Your task to perform on an android device: toggle data saver in the chrome app Image 0: 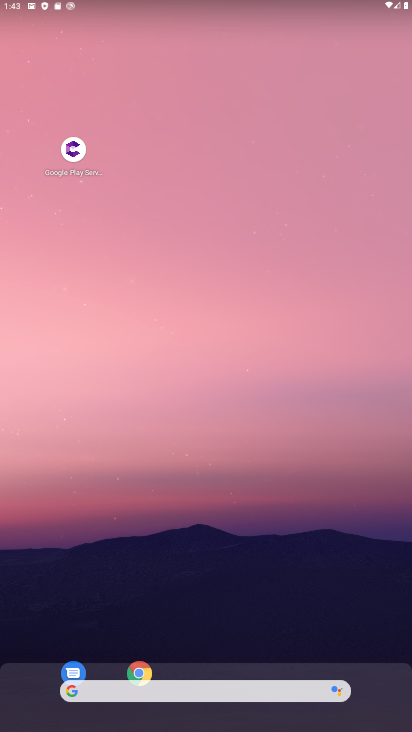
Step 0: click (134, 709)
Your task to perform on an android device: toggle data saver in the chrome app Image 1: 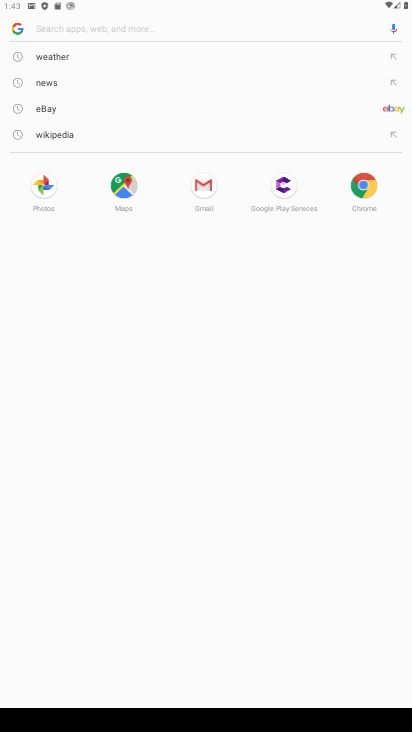
Step 1: press home button
Your task to perform on an android device: toggle data saver in the chrome app Image 2: 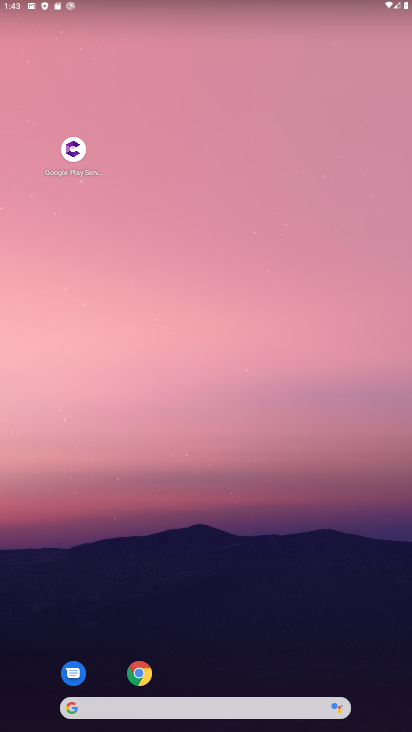
Step 2: click (140, 674)
Your task to perform on an android device: toggle data saver in the chrome app Image 3: 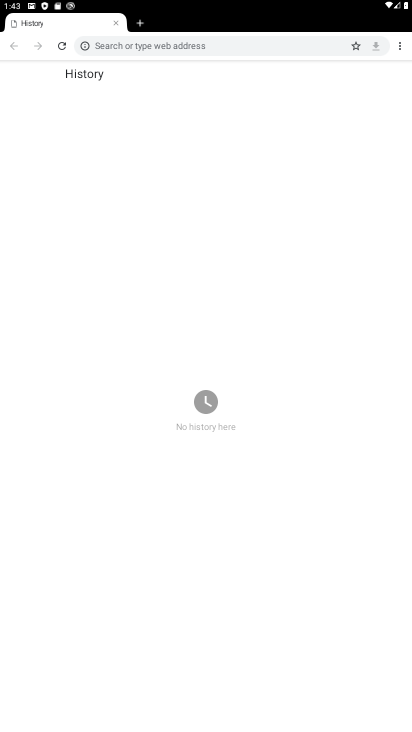
Step 3: click (405, 50)
Your task to perform on an android device: toggle data saver in the chrome app Image 4: 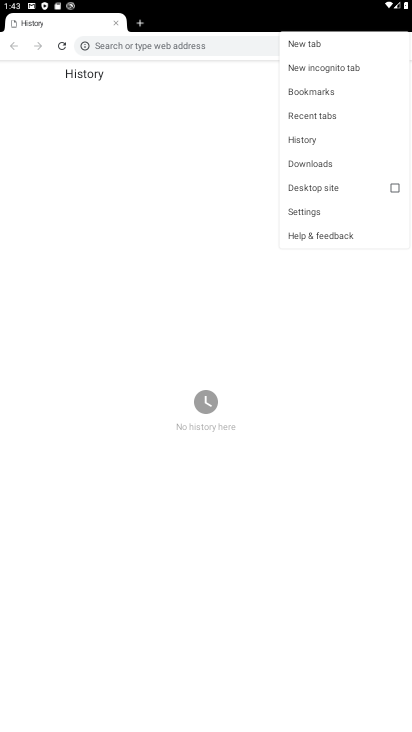
Step 4: click (313, 220)
Your task to perform on an android device: toggle data saver in the chrome app Image 5: 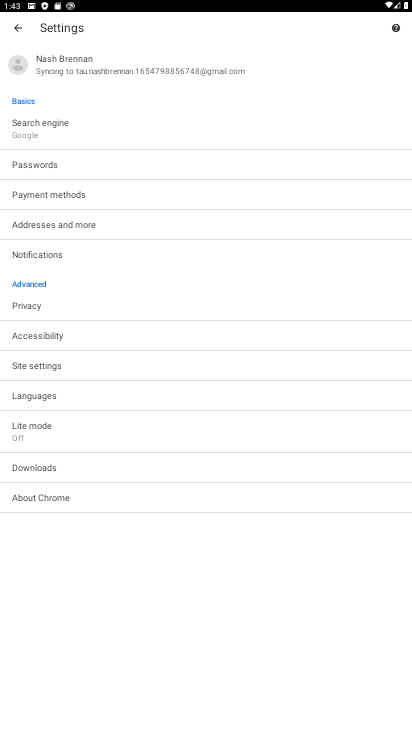
Step 5: click (71, 431)
Your task to perform on an android device: toggle data saver in the chrome app Image 6: 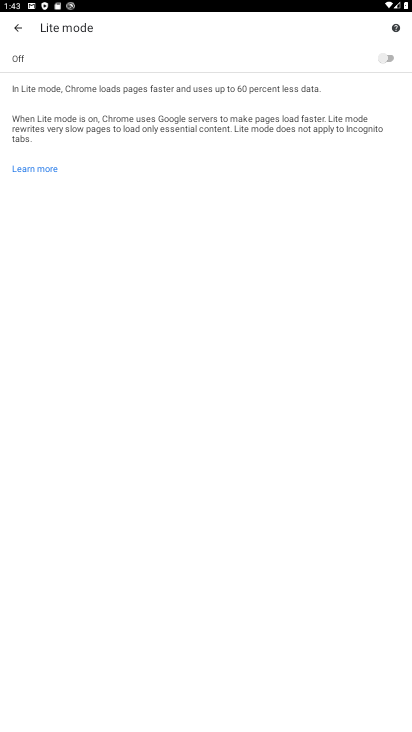
Step 6: click (389, 62)
Your task to perform on an android device: toggle data saver in the chrome app Image 7: 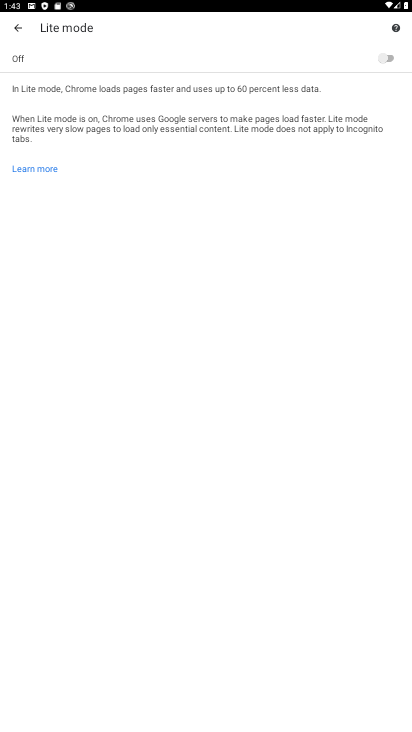
Step 7: click (389, 62)
Your task to perform on an android device: toggle data saver in the chrome app Image 8: 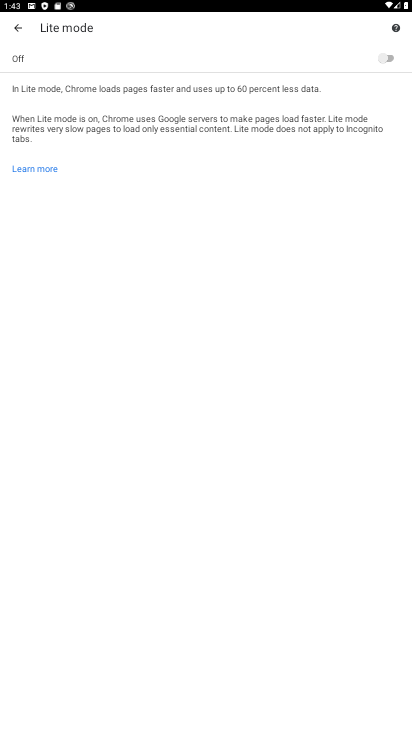
Step 8: click (389, 62)
Your task to perform on an android device: toggle data saver in the chrome app Image 9: 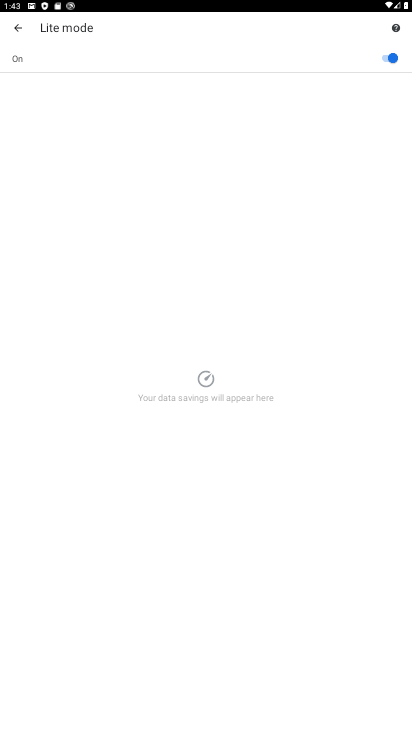
Step 9: click (389, 62)
Your task to perform on an android device: toggle data saver in the chrome app Image 10: 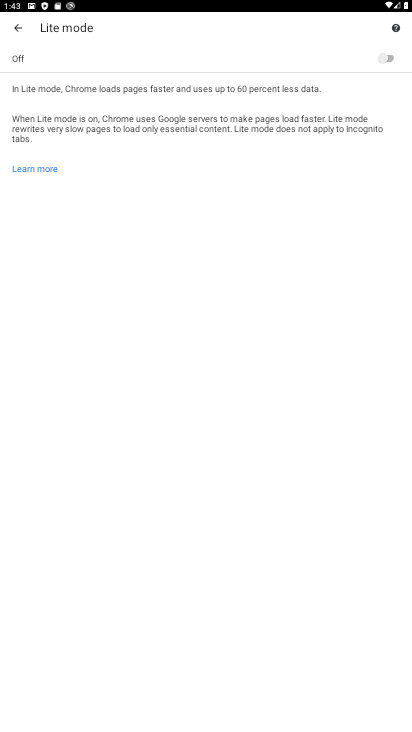
Step 10: task complete